Your task to perform on an android device: Open notification settings Image 0: 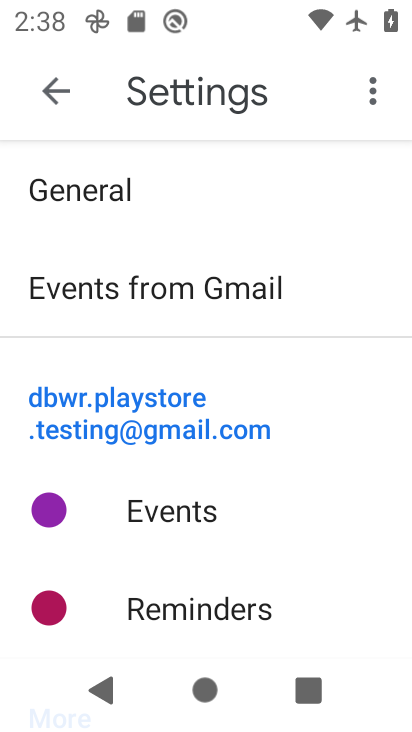
Step 0: press home button
Your task to perform on an android device: Open notification settings Image 1: 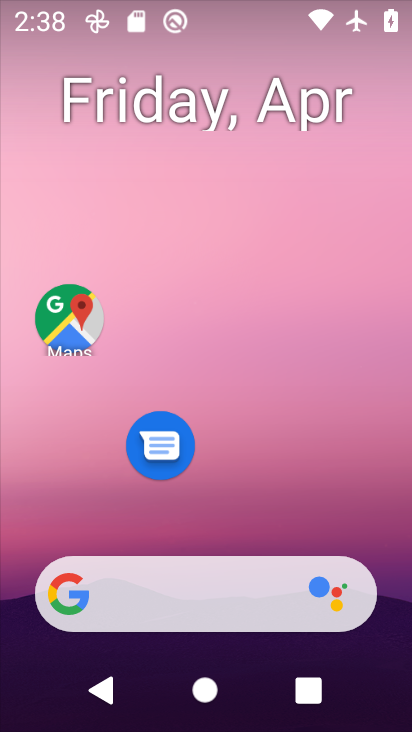
Step 1: drag from (283, 519) to (301, 80)
Your task to perform on an android device: Open notification settings Image 2: 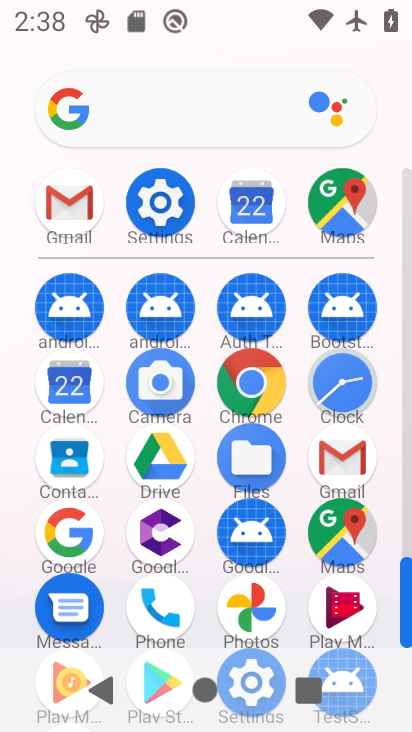
Step 2: click (169, 212)
Your task to perform on an android device: Open notification settings Image 3: 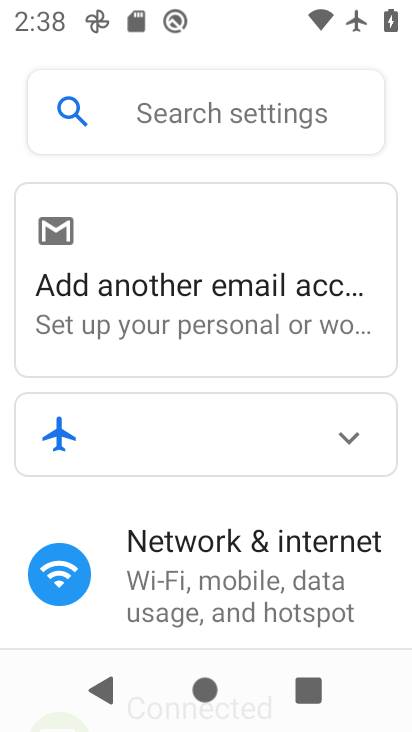
Step 3: drag from (255, 465) to (253, 379)
Your task to perform on an android device: Open notification settings Image 4: 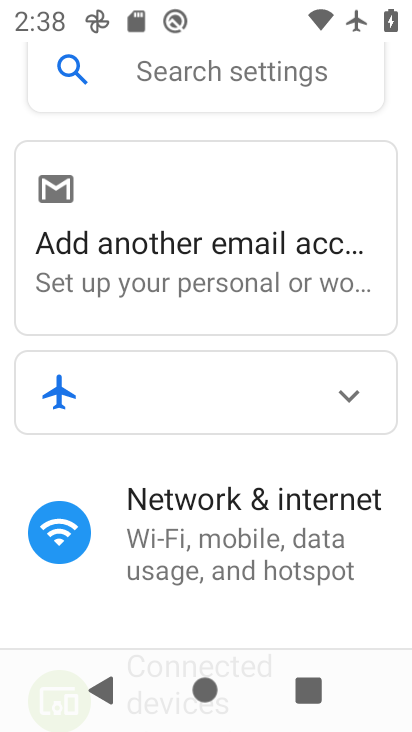
Step 4: drag from (263, 461) to (253, 382)
Your task to perform on an android device: Open notification settings Image 5: 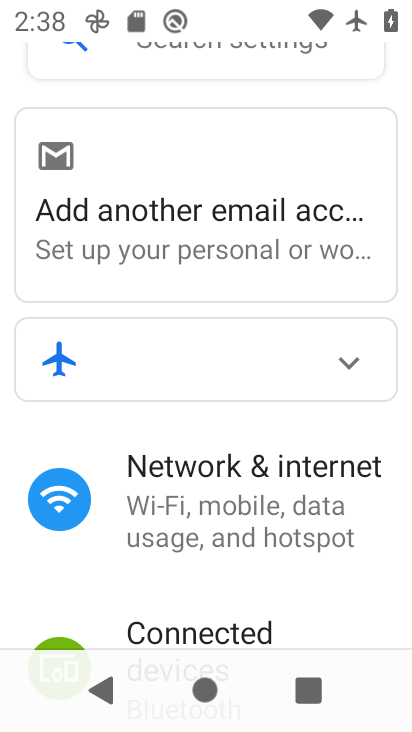
Step 5: drag from (268, 474) to (259, 412)
Your task to perform on an android device: Open notification settings Image 6: 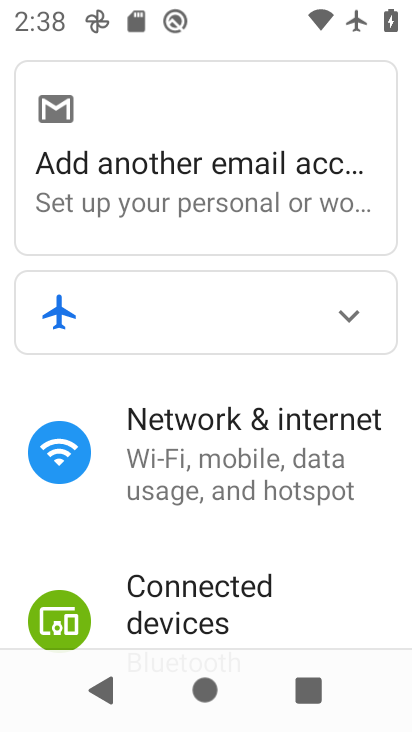
Step 6: drag from (273, 472) to (266, 392)
Your task to perform on an android device: Open notification settings Image 7: 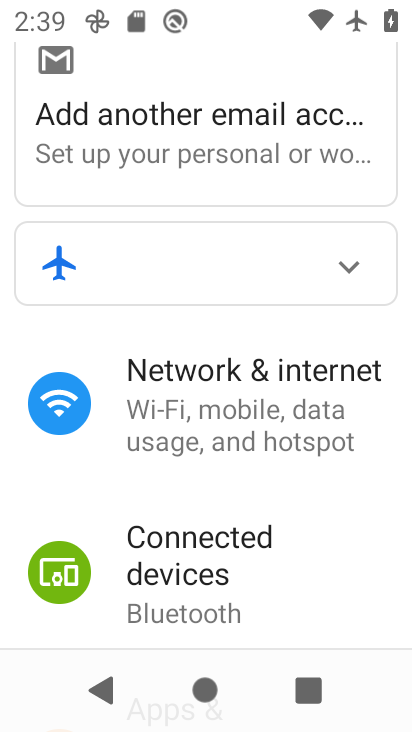
Step 7: drag from (277, 464) to (274, 379)
Your task to perform on an android device: Open notification settings Image 8: 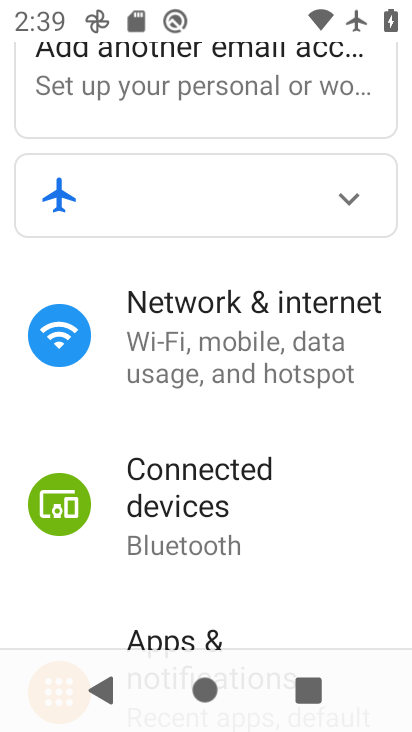
Step 8: click (269, 416)
Your task to perform on an android device: Open notification settings Image 9: 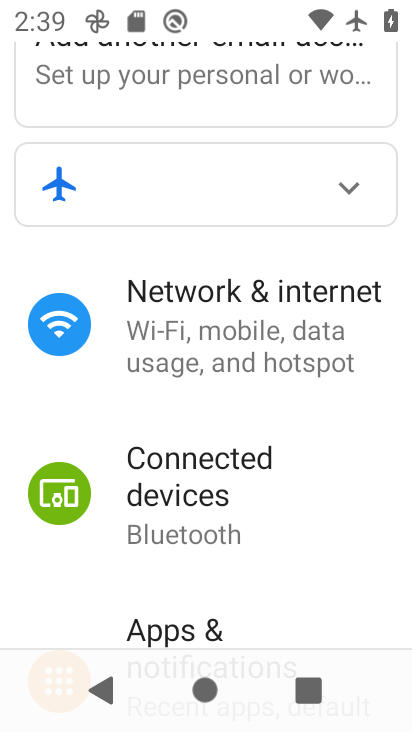
Step 9: drag from (280, 451) to (279, 363)
Your task to perform on an android device: Open notification settings Image 10: 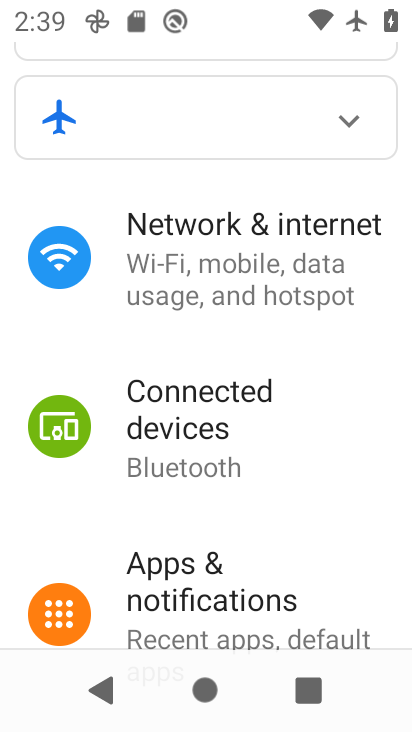
Step 10: drag from (288, 515) to (279, 364)
Your task to perform on an android device: Open notification settings Image 11: 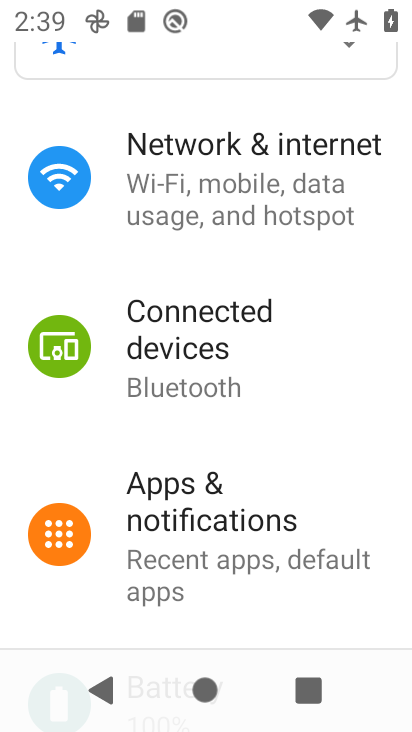
Step 11: click (281, 534)
Your task to perform on an android device: Open notification settings Image 12: 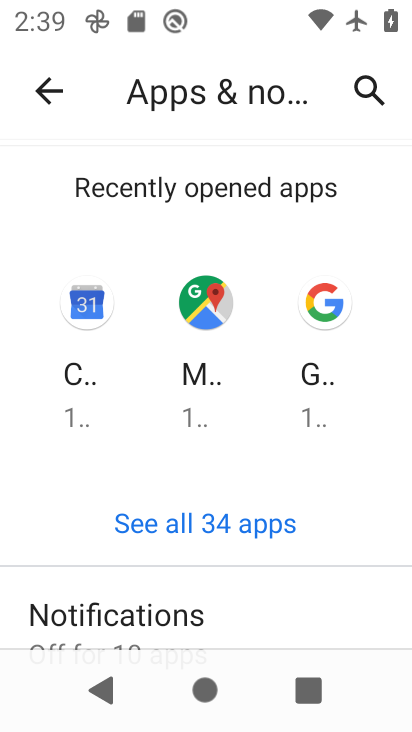
Step 12: task complete